Your task to perform on an android device: allow cookies in the chrome app Image 0: 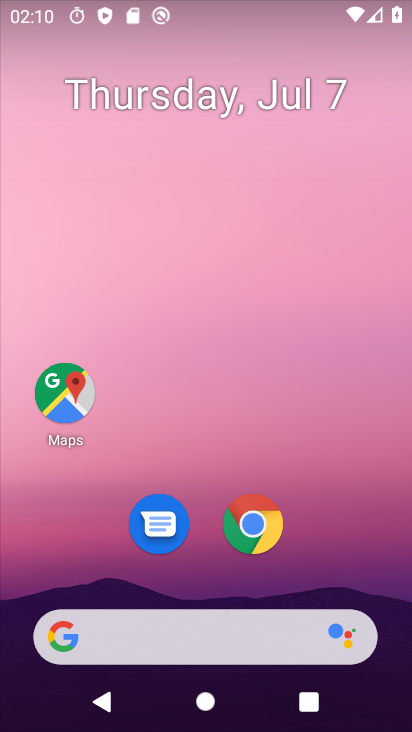
Step 0: click (260, 519)
Your task to perform on an android device: allow cookies in the chrome app Image 1: 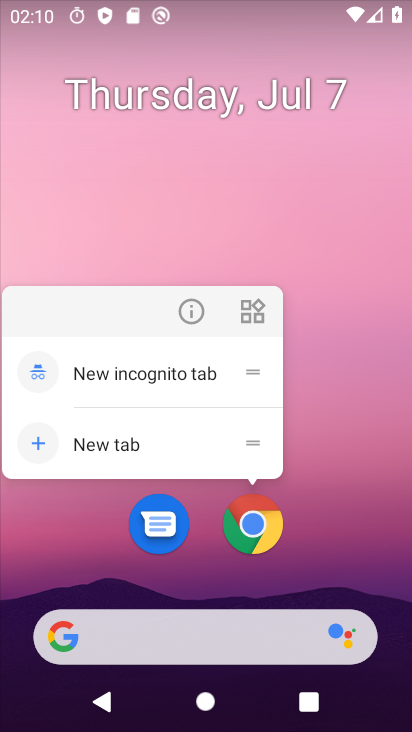
Step 1: click (260, 519)
Your task to perform on an android device: allow cookies in the chrome app Image 2: 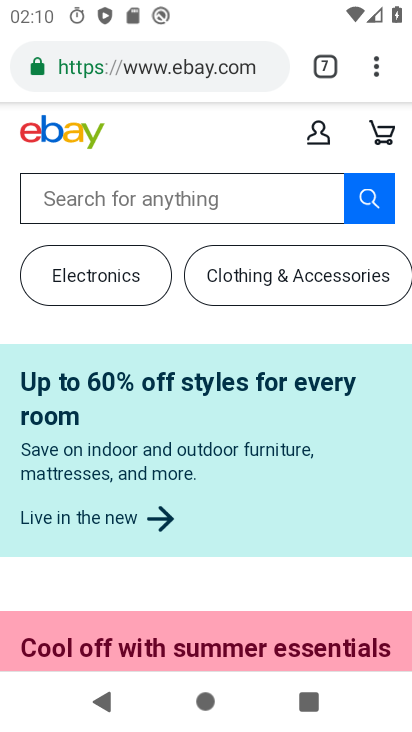
Step 2: click (375, 59)
Your task to perform on an android device: allow cookies in the chrome app Image 3: 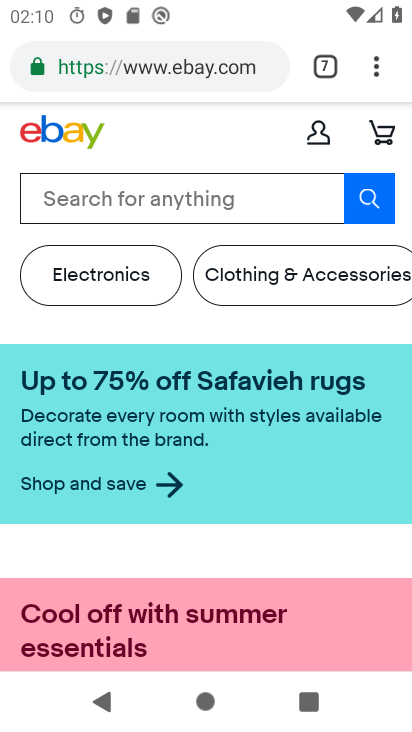
Step 3: click (375, 61)
Your task to perform on an android device: allow cookies in the chrome app Image 4: 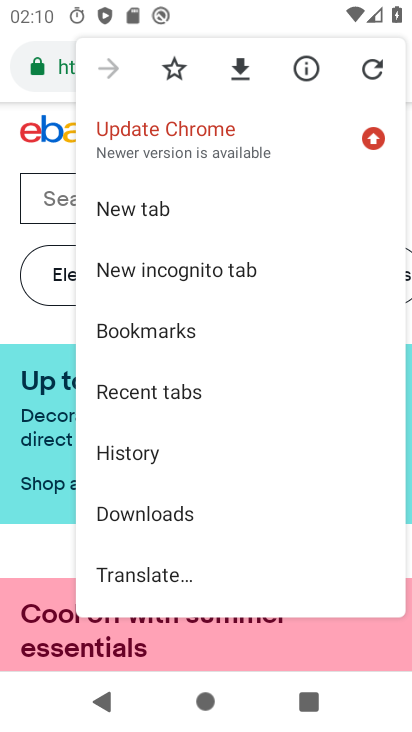
Step 4: drag from (227, 470) to (237, 49)
Your task to perform on an android device: allow cookies in the chrome app Image 5: 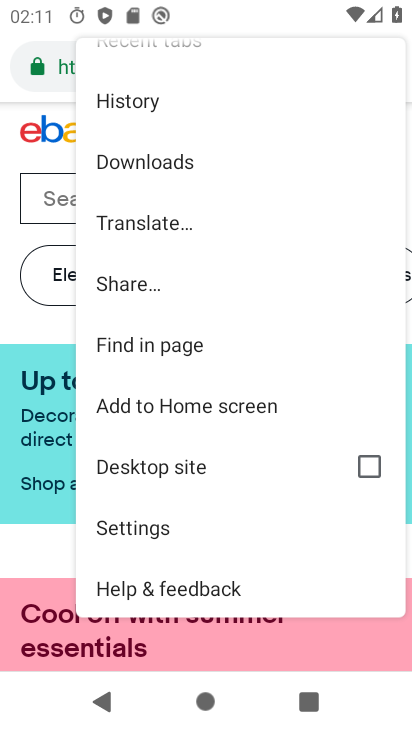
Step 5: click (154, 527)
Your task to perform on an android device: allow cookies in the chrome app Image 6: 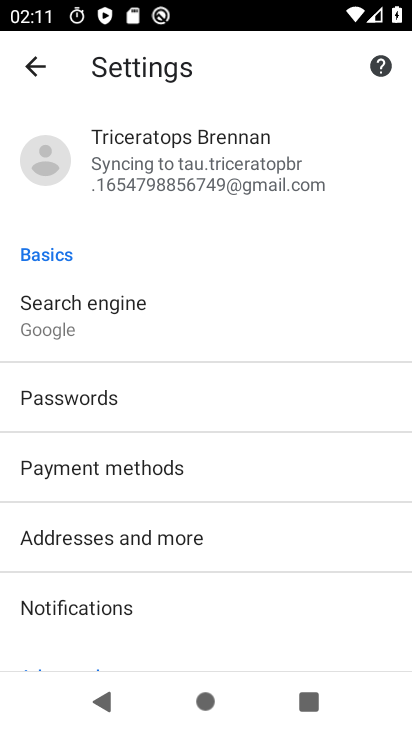
Step 6: drag from (228, 479) to (256, 145)
Your task to perform on an android device: allow cookies in the chrome app Image 7: 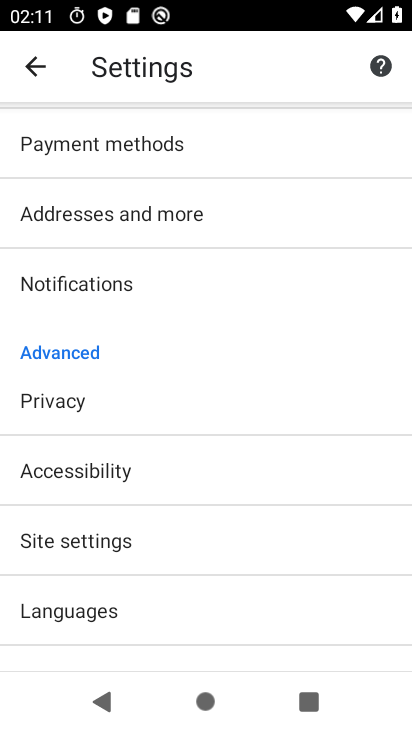
Step 7: drag from (213, 533) to (241, 221)
Your task to perform on an android device: allow cookies in the chrome app Image 8: 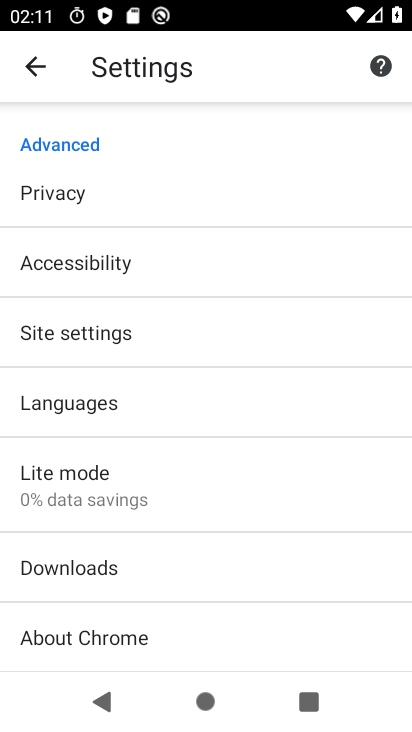
Step 8: click (158, 339)
Your task to perform on an android device: allow cookies in the chrome app Image 9: 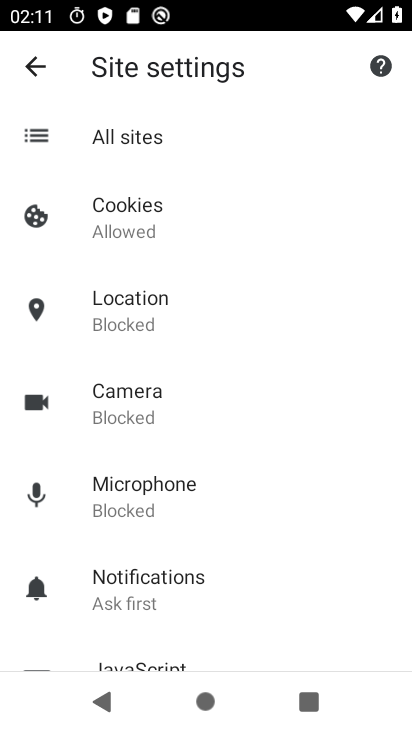
Step 9: click (151, 212)
Your task to perform on an android device: allow cookies in the chrome app Image 10: 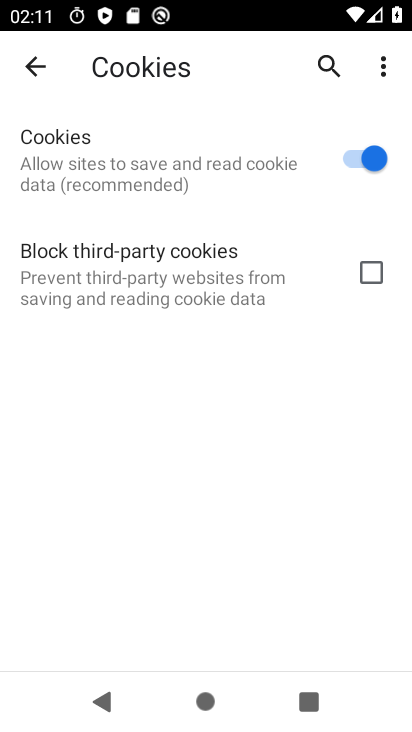
Step 10: task complete